Your task to perform on an android device: turn smart compose on in the gmail app Image 0: 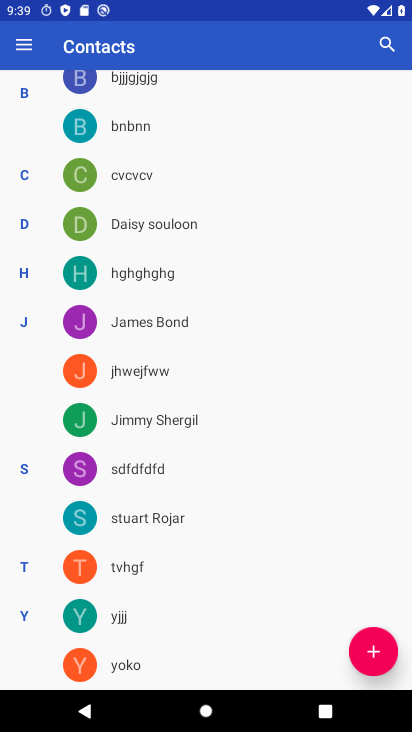
Step 0: press home button
Your task to perform on an android device: turn smart compose on in the gmail app Image 1: 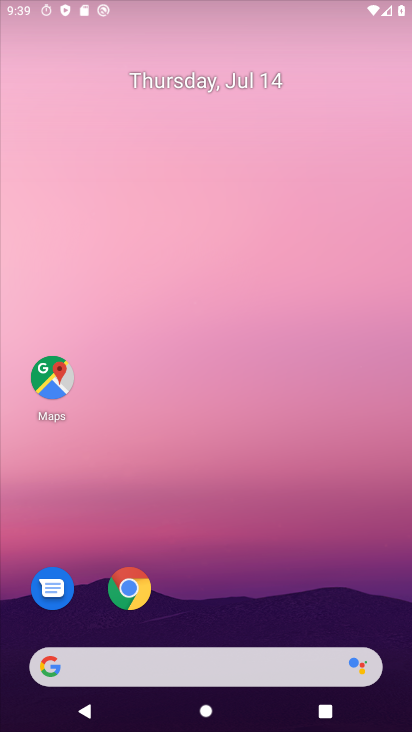
Step 1: drag from (184, 614) to (151, 344)
Your task to perform on an android device: turn smart compose on in the gmail app Image 2: 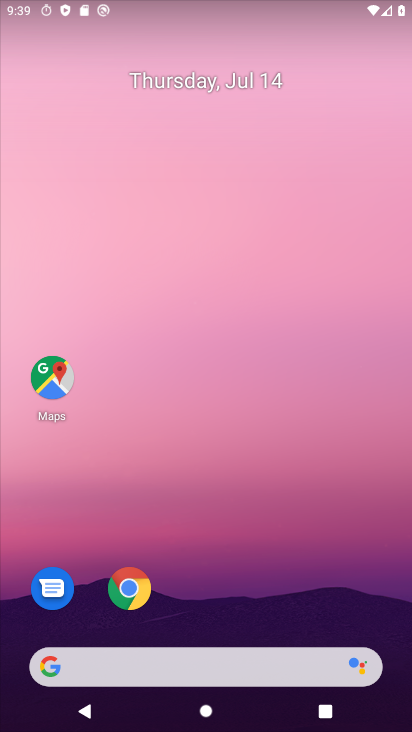
Step 2: drag from (184, 640) to (170, 315)
Your task to perform on an android device: turn smart compose on in the gmail app Image 3: 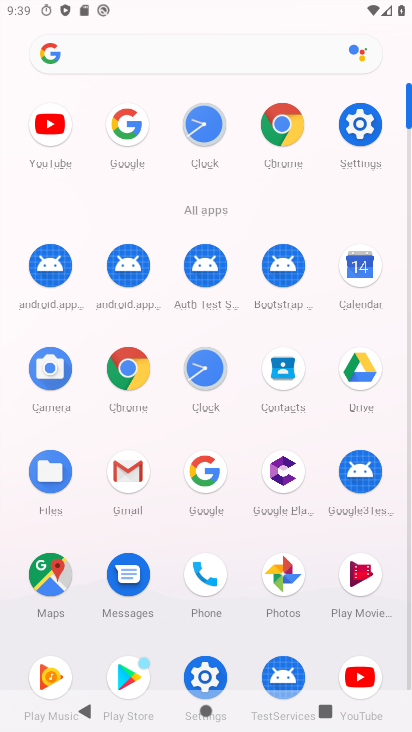
Step 3: click (123, 489)
Your task to perform on an android device: turn smart compose on in the gmail app Image 4: 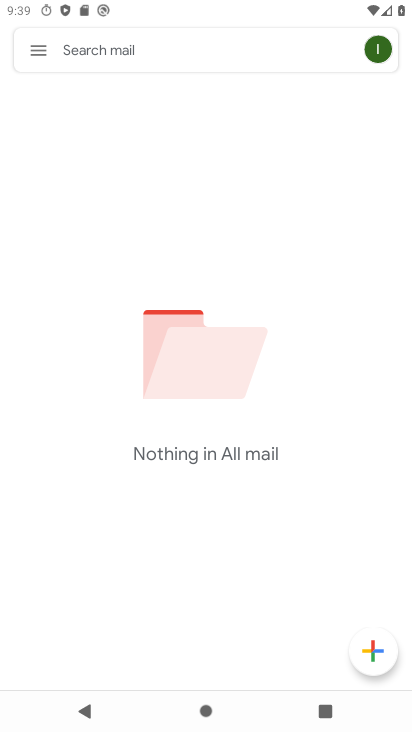
Step 4: click (35, 49)
Your task to perform on an android device: turn smart compose on in the gmail app Image 5: 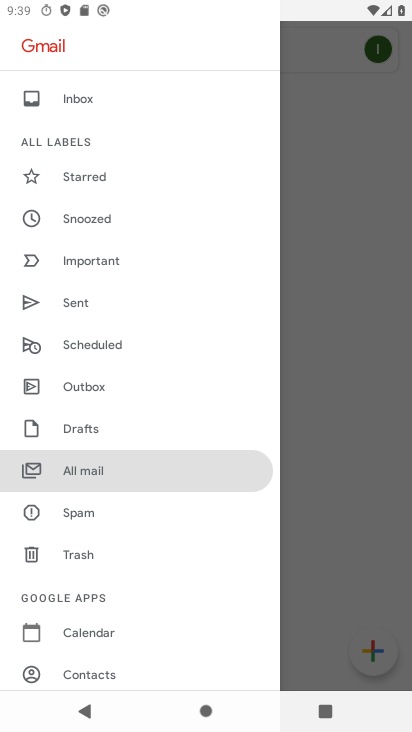
Step 5: drag from (137, 670) to (102, 269)
Your task to perform on an android device: turn smart compose on in the gmail app Image 6: 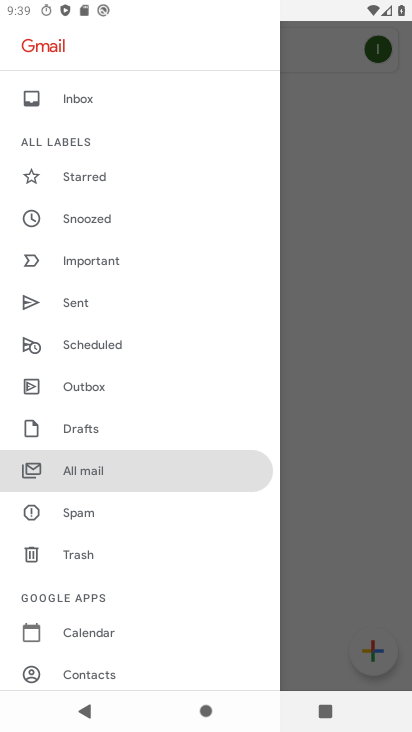
Step 6: drag from (91, 681) to (46, 252)
Your task to perform on an android device: turn smart compose on in the gmail app Image 7: 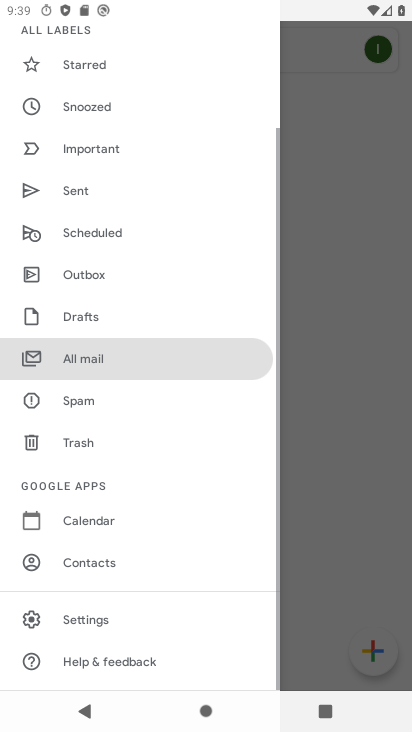
Step 7: click (97, 622)
Your task to perform on an android device: turn smart compose on in the gmail app Image 8: 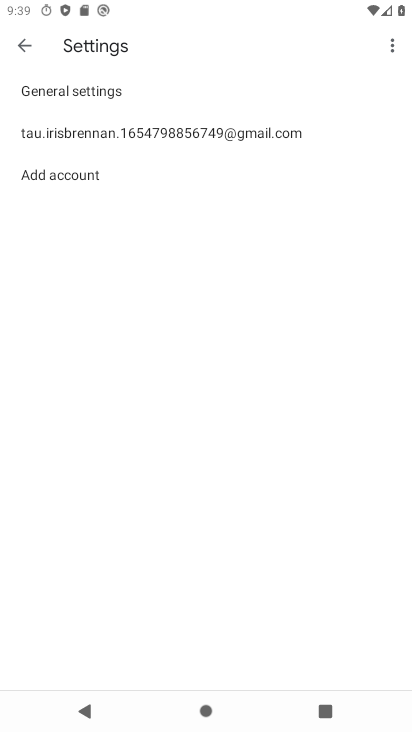
Step 8: click (69, 135)
Your task to perform on an android device: turn smart compose on in the gmail app Image 9: 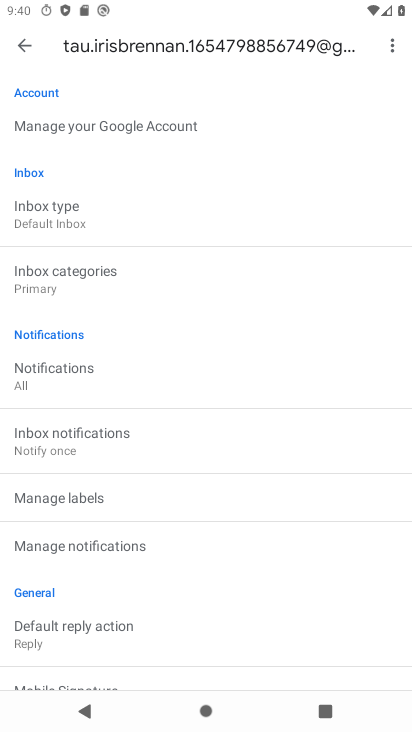
Step 9: task complete